Your task to perform on an android device: open app "WhatsApp Messenger" (install if not already installed) Image 0: 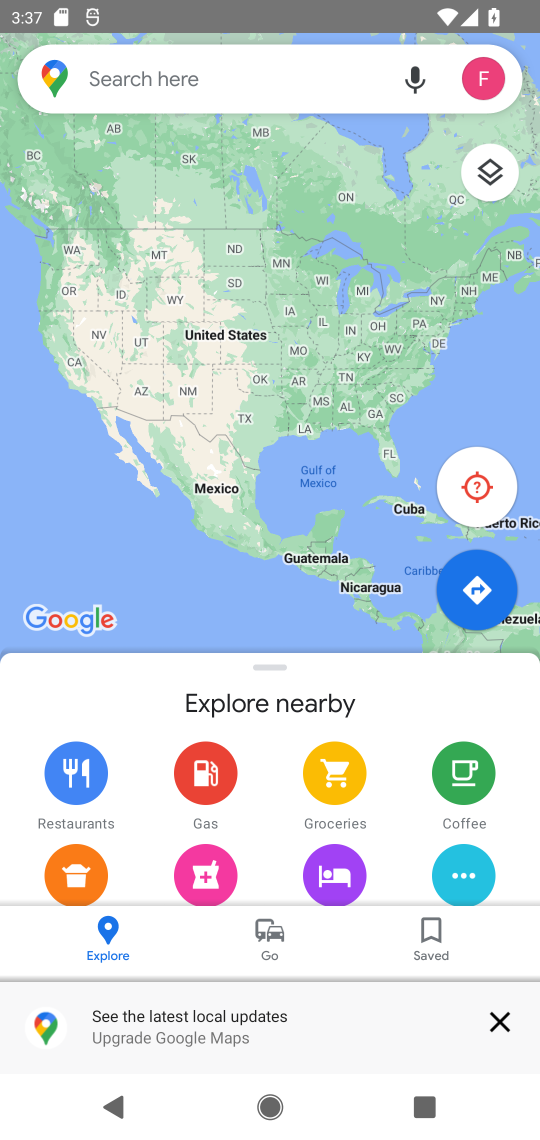
Step 0: press home button
Your task to perform on an android device: open app "WhatsApp Messenger" (install if not already installed) Image 1: 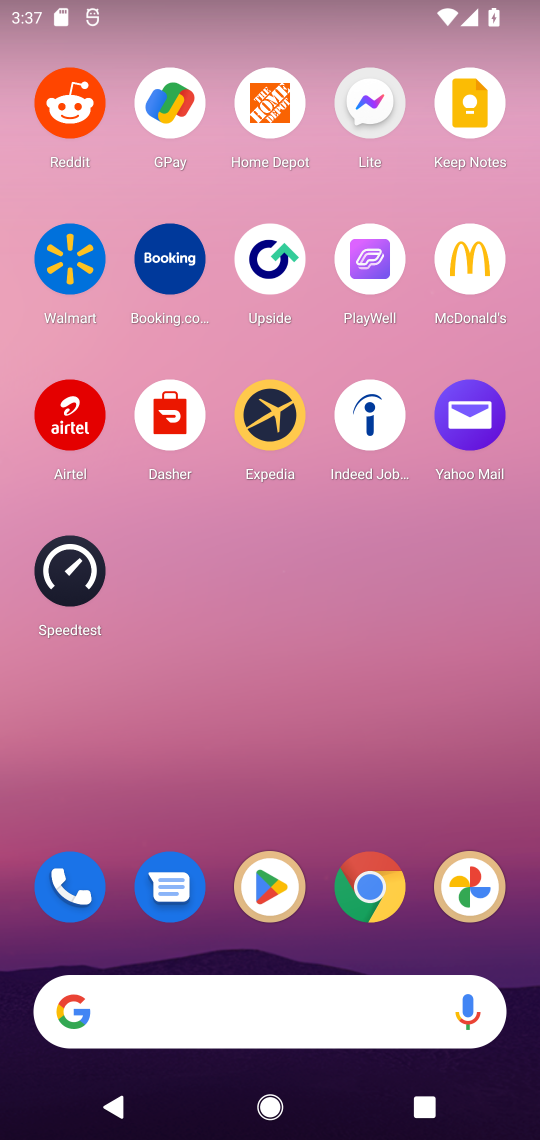
Step 1: click (270, 889)
Your task to perform on an android device: open app "WhatsApp Messenger" (install if not already installed) Image 2: 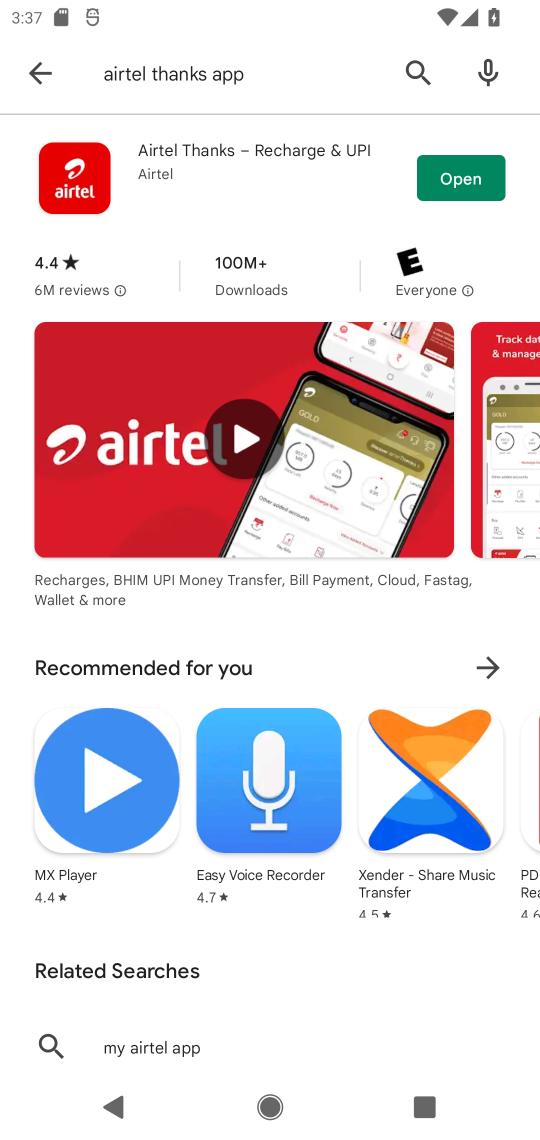
Step 2: click (34, 65)
Your task to perform on an android device: open app "WhatsApp Messenger" (install if not already installed) Image 3: 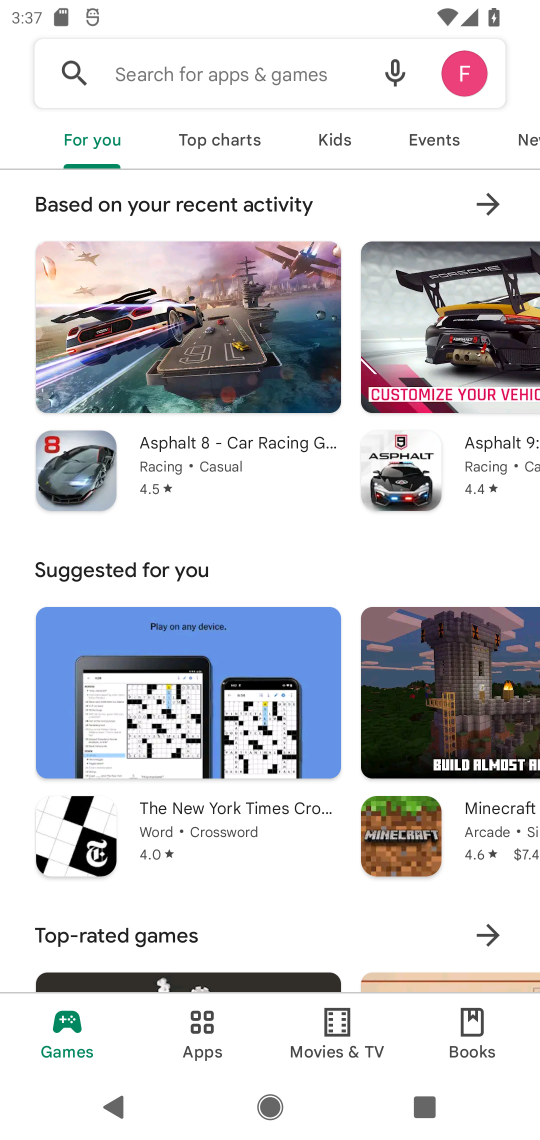
Step 3: click (228, 64)
Your task to perform on an android device: open app "WhatsApp Messenger" (install if not already installed) Image 4: 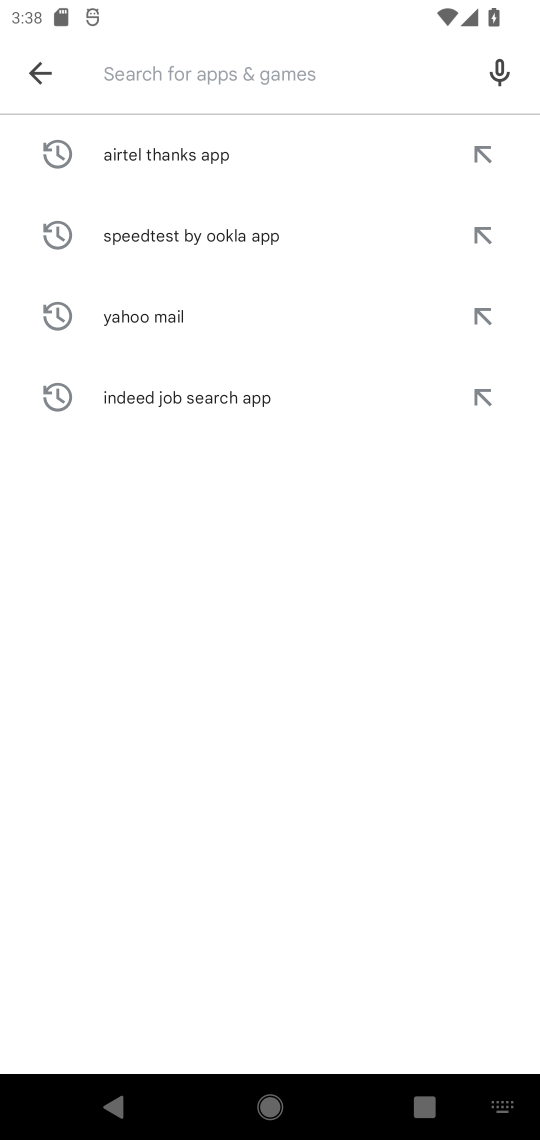
Step 4: type "WhatsApp Messenger"
Your task to perform on an android device: open app "WhatsApp Messenger" (install if not already installed) Image 5: 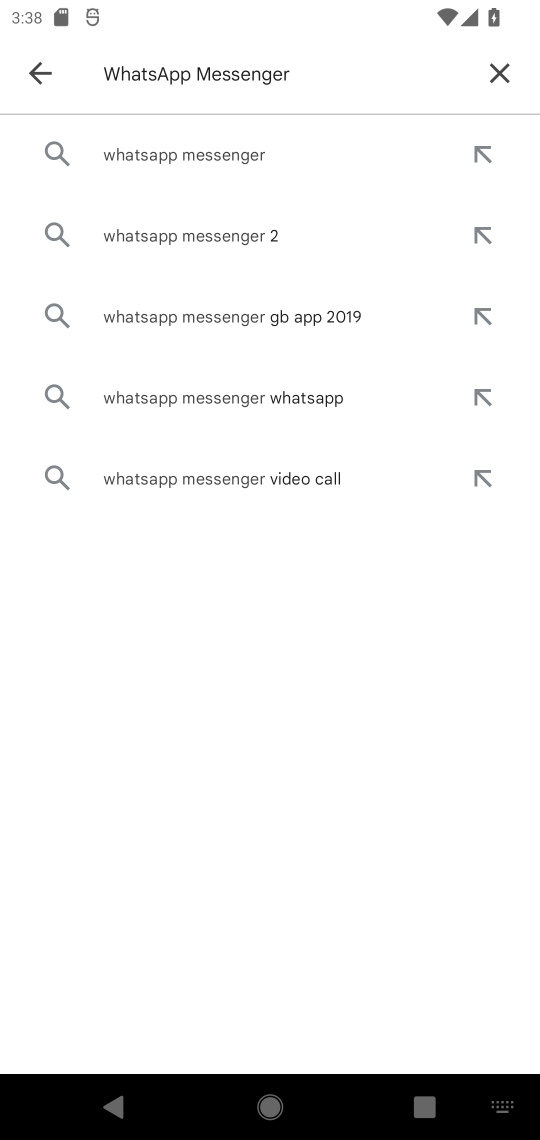
Step 5: click (230, 153)
Your task to perform on an android device: open app "WhatsApp Messenger" (install if not already installed) Image 6: 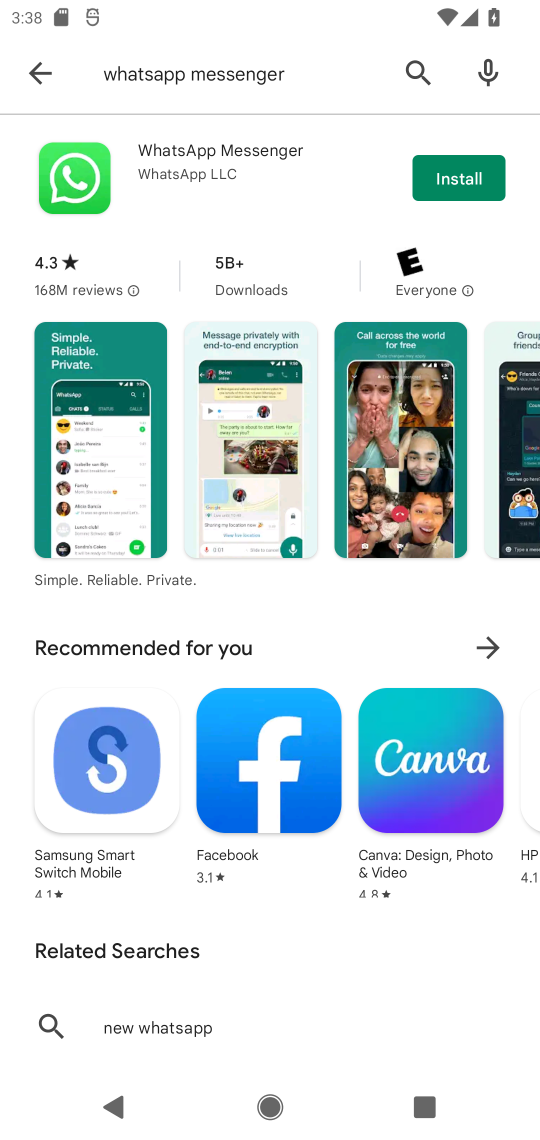
Step 6: click (457, 189)
Your task to perform on an android device: open app "WhatsApp Messenger" (install if not already installed) Image 7: 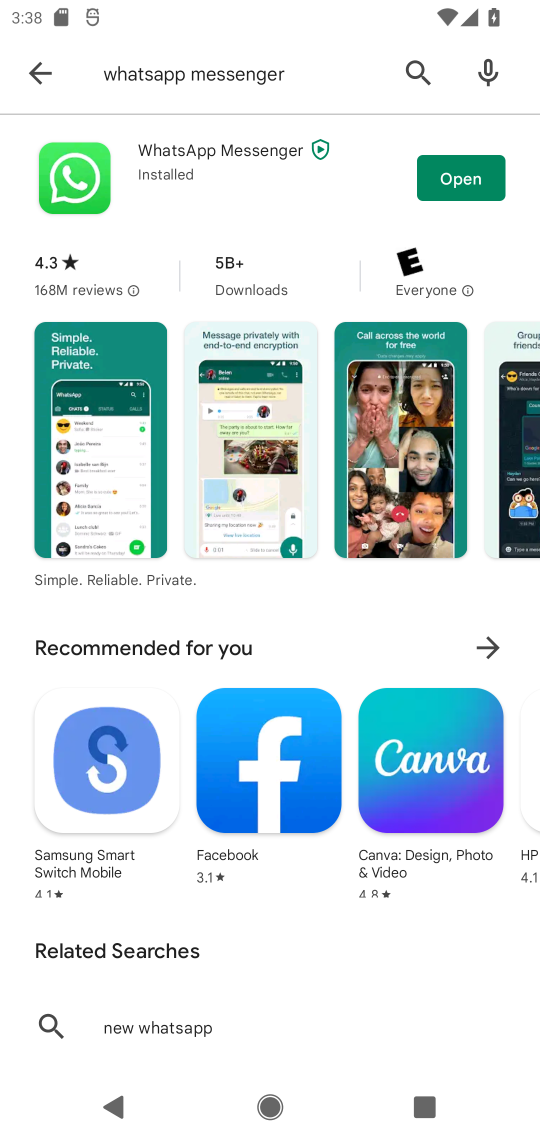
Step 7: click (451, 180)
Your task to perform on an android device: open app "WhatsApp Messenger" (install if not already installed) Image 8: 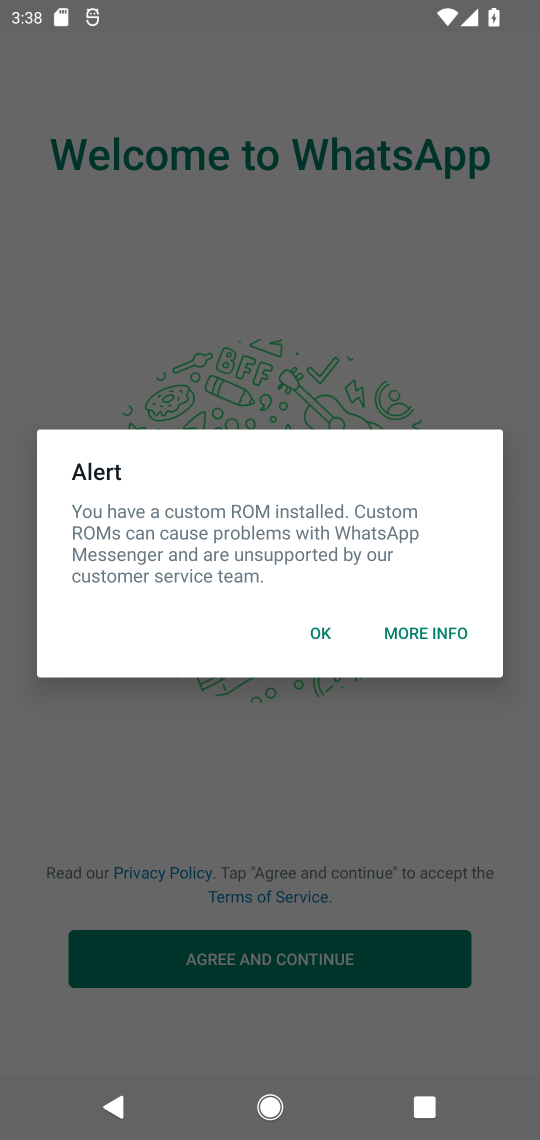
Step 8: task complete